Your task to perform on an android device: What's on my calendar tomorrow? Image 0: 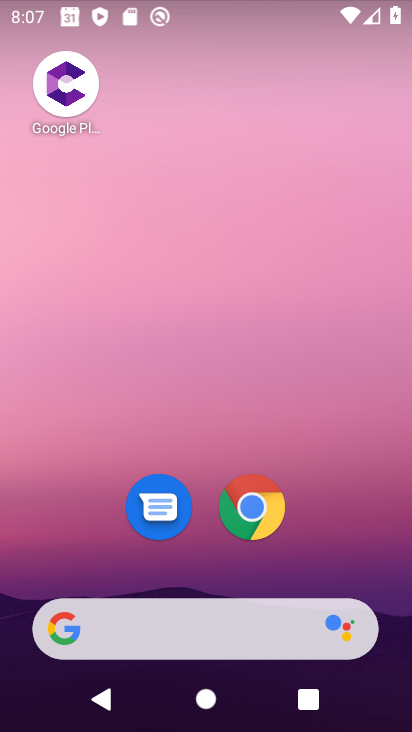
Step 0: drag from (202, 516) to (323, 14)
Your task to perform on an android device: What's on my calendar tomorrow? Image 1: 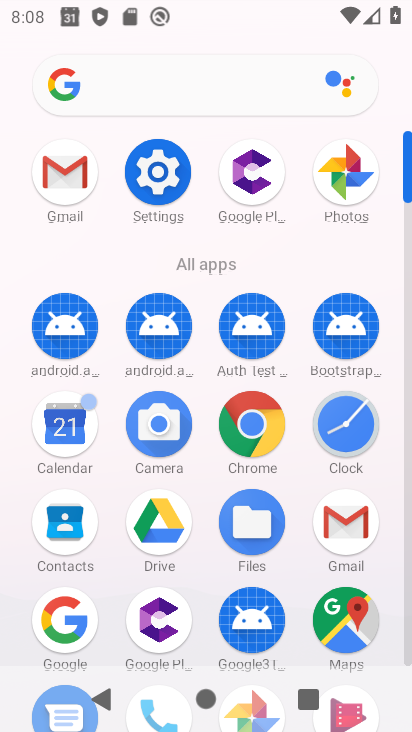
Step 1: click (63, 424)
Your task to perform on an android device: What's on my calendar tomorrow? Image 2: 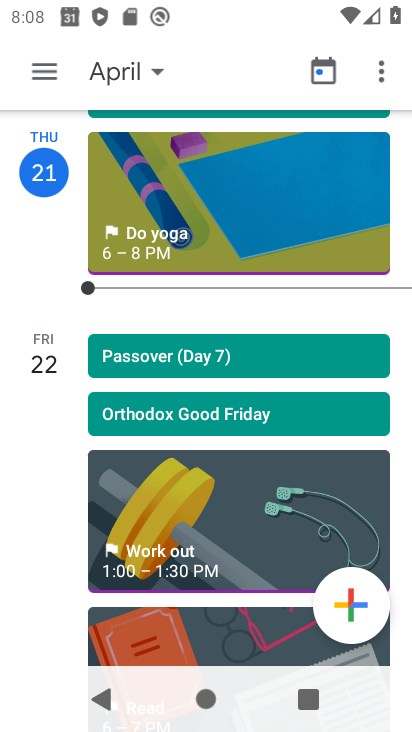
Step 2: click (156, 73)
Your task to perform on an android device: What's on my calendar tomorrow? Image 3: 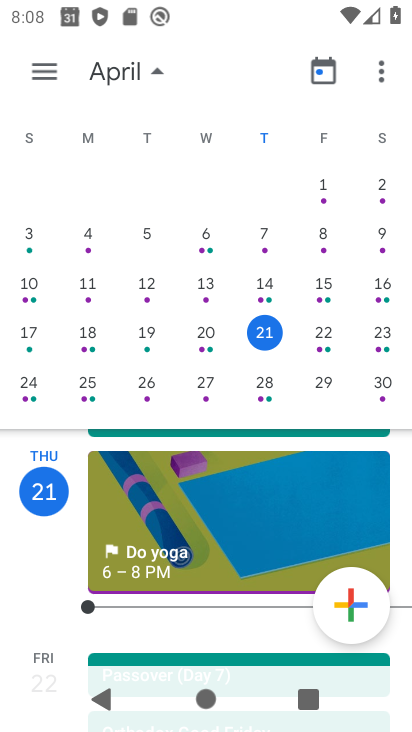
Step 3: drag from (214, 508) to (311, 34)
Your task to perform on an android device: What's on my calendar tomorrow? Image 4: 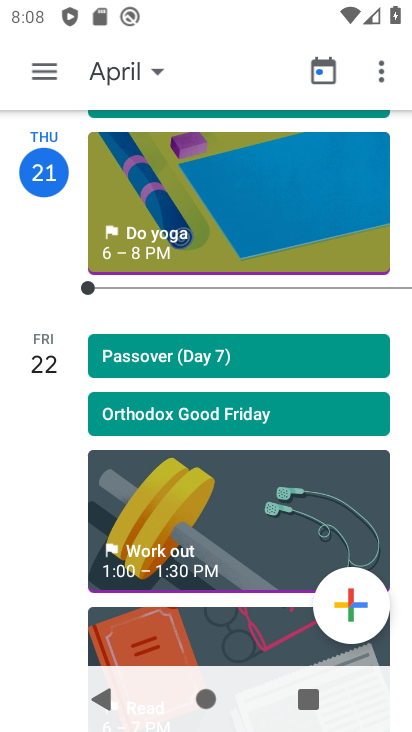
Step 4: click (203, 531)
Your task to perform on an android device: What's on my calendar tomorrow? Image 5: 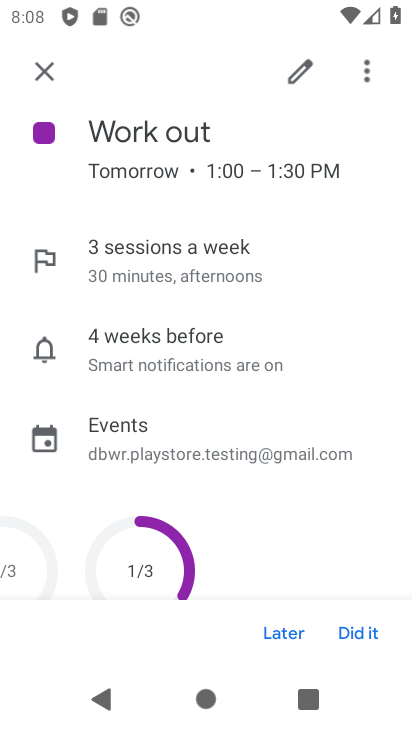
Step 5: task complete